Your task to perform on an android device: Open location settings Image 0: 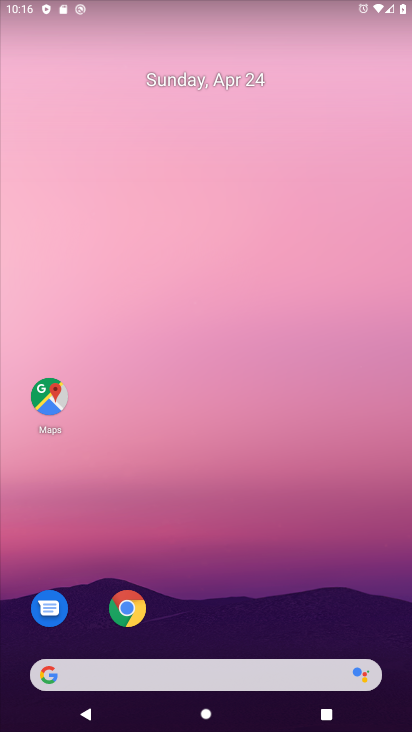
Step 0: drag from (202, 185) to (180, 3)
Your task to perform on an android device: Open location settings Image 1: 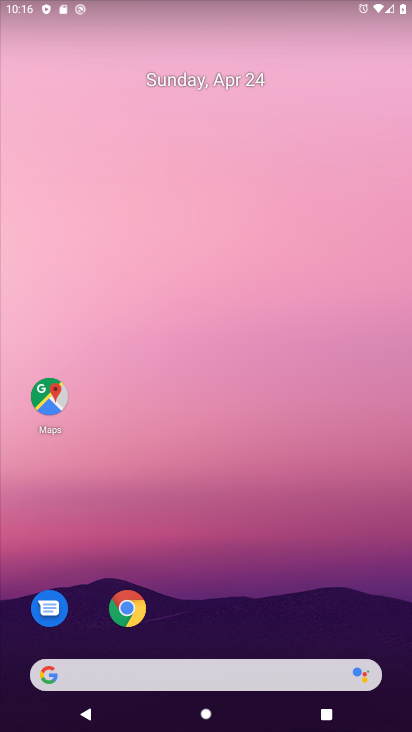
Step 1: drag from (232, 611) to (182, 5)
Your task to perform on an android device: Open location settings Image 2: 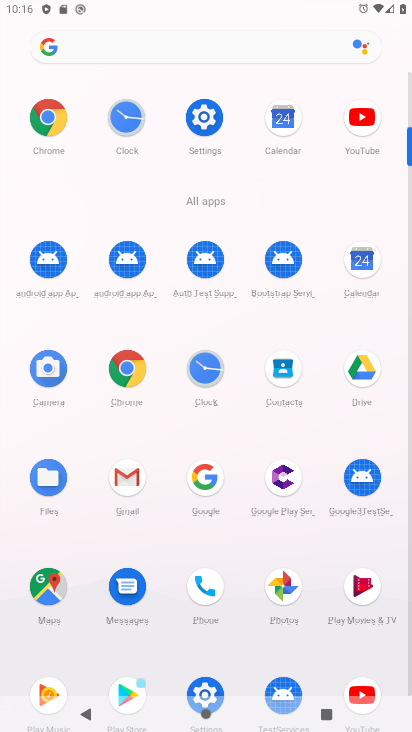
Step 2: drag from (25, 622) to (10, 287)
Your task to perform on an android device: Open location settings Image 3: 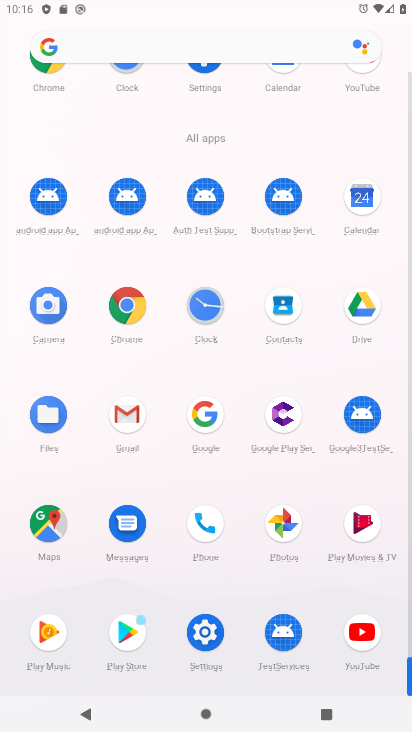
Step 3: click (205, 625)
Your task to perform on an android device: Open location settings Image 4: 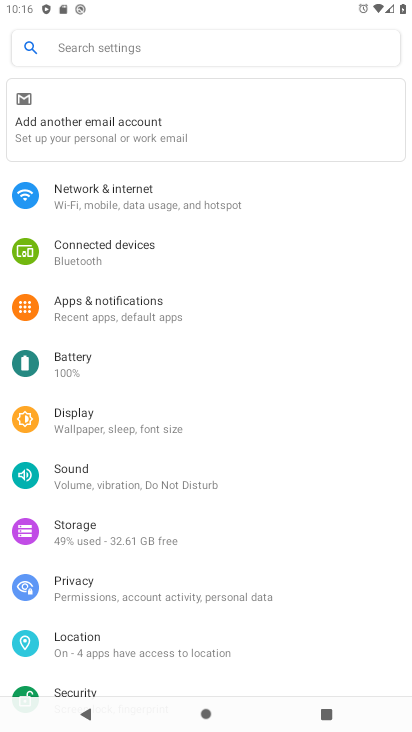
Step 4: drag from (267, 569) to (262, 194)
Your task to perform on an android device: Open location settings Image 5: 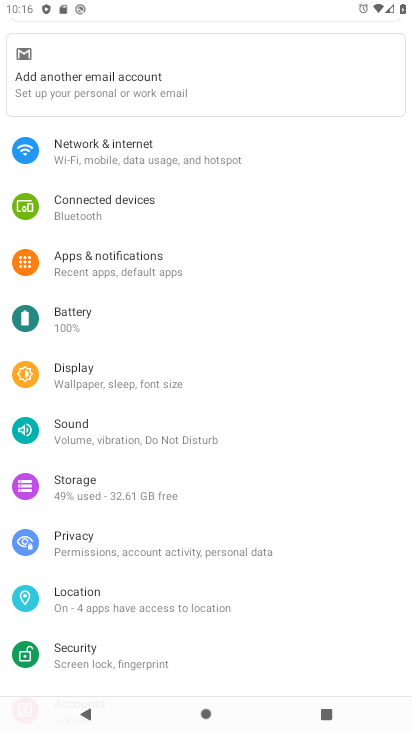
Step 5: click (119, 611)
Your task to perform on an android device: Open location settings Image 6: 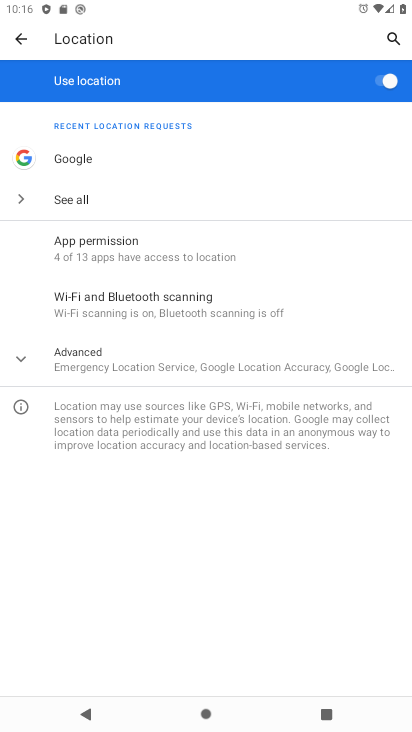
Step 6: click (23, 361)
Your task to perform on an android device: Open location settings Image 7: 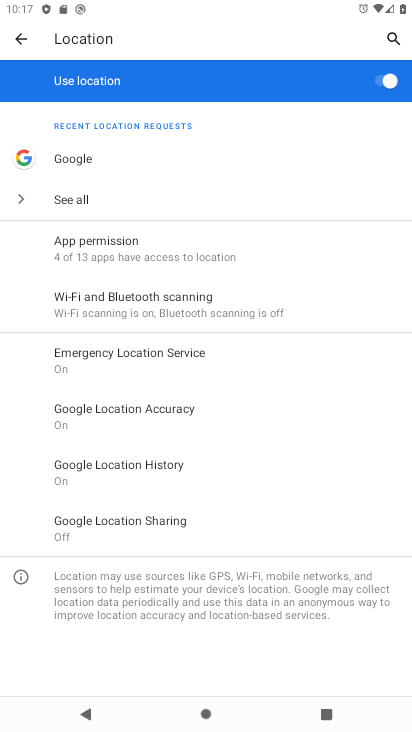
Step 7: task complete